Your task to perform on an android device: What's on my calendar tomorrow? Image 0: 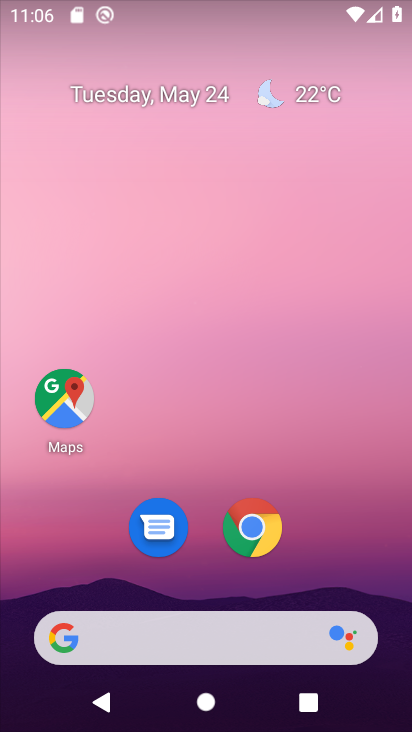
Step 0: press home button
Your task to perform on an android device: What's on my calendar tomorrow? Image 1: 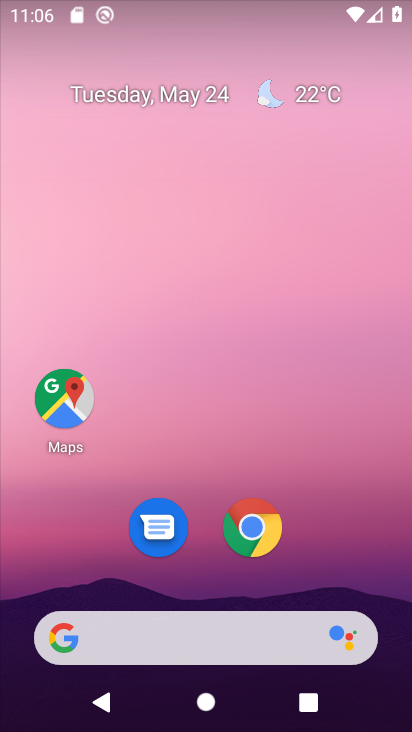
Step 1: drag from (130, 648) to (227, 174)
Your task to perform on an android device: What's on my calendar tomorrow? Image 2: 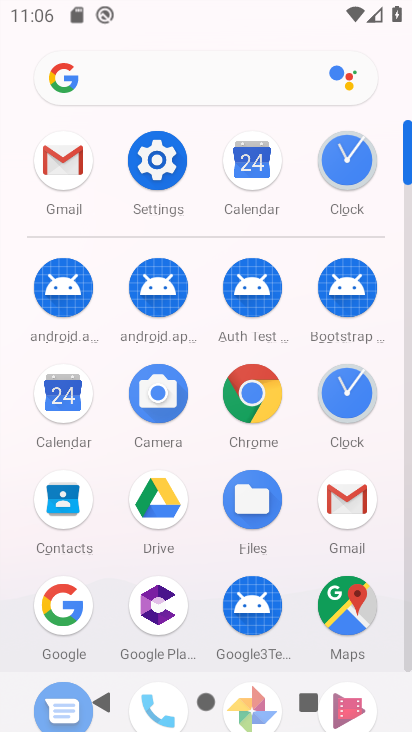
Step 2: click (57, 397)
Your task to perform on an android device: What's on my calendar tomorrow? Image 3: 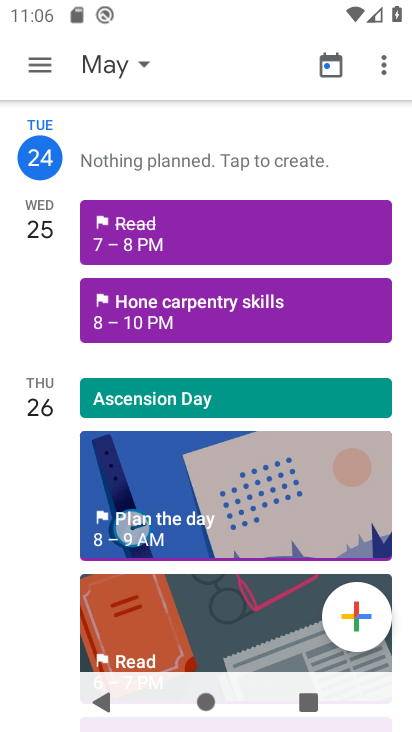
Step 3: click (124, 303)
Your task to perform on an android device: What's on my calendar tomorrow? Image 4: 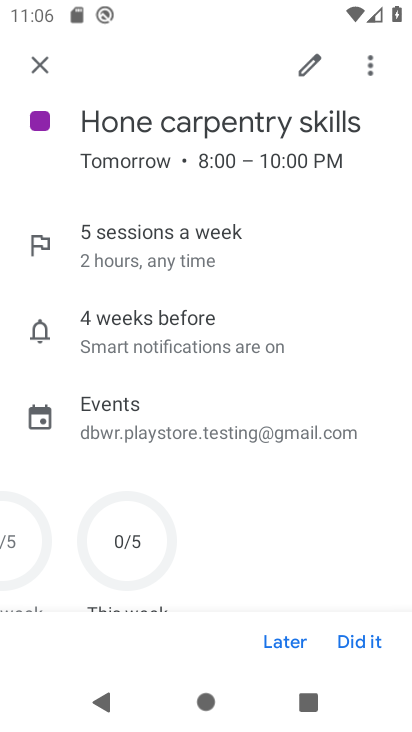
Step 4: task complete